Your task to perform on an android device: Do I have any events today? Image 0: 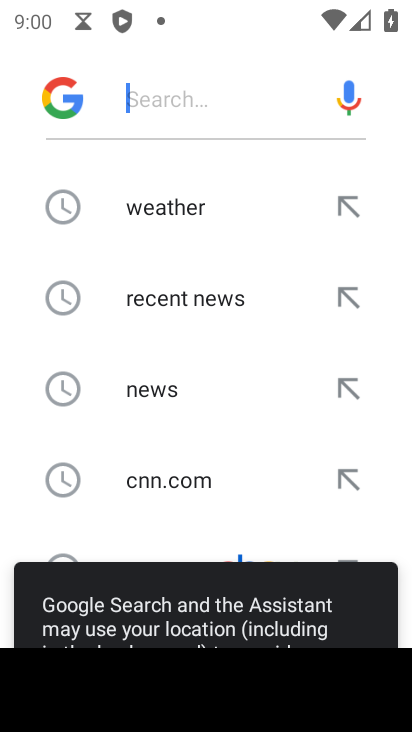
Step 0: drag from (334, 522) to (289, 6)
Your task to perform on an android device: Do I have any events today? Image 1: 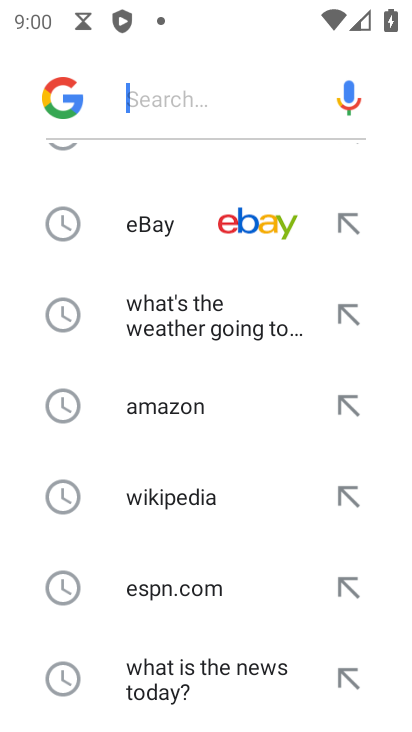
Step 1: press back button
Your task to perform on an android device: Do I have any events today? Image 2: 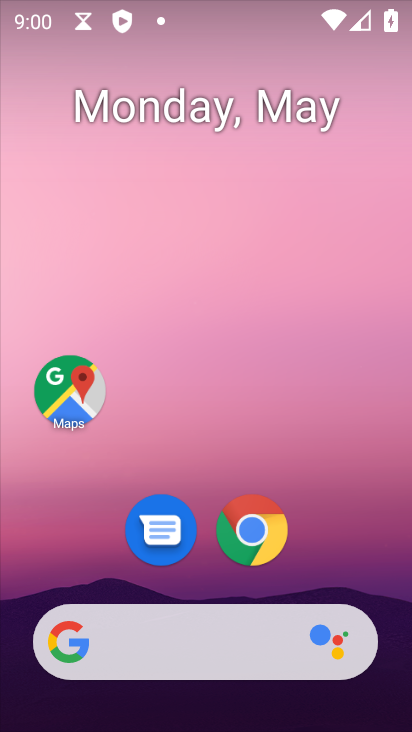
Step 2: drag from (353, 549) to (262, 19)
Your task to perform on an android device: Do I have any events today? Image 3: 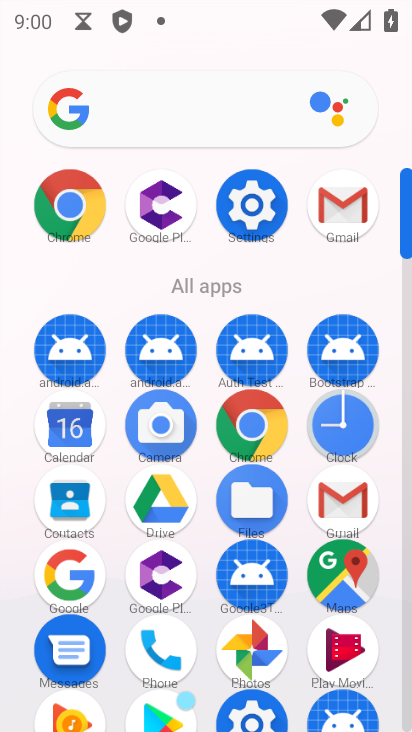
Step 3: click (70, 417)
Your task to perform on an android device: Do I have any events today? Image 4: 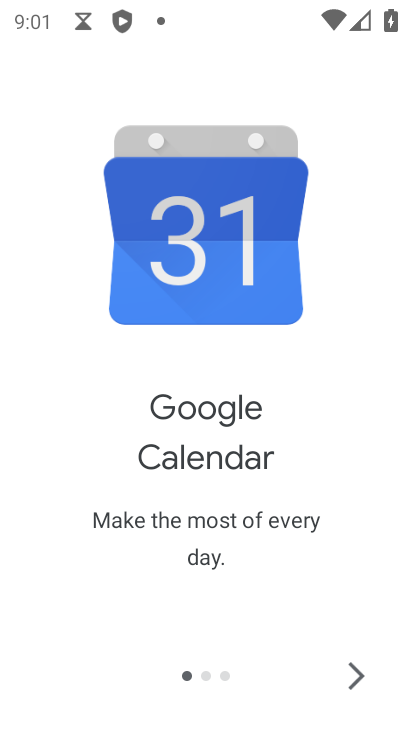
Step 4: click (351, 673)
Your task to perform on an android device: Do I have any events today? Image 5: 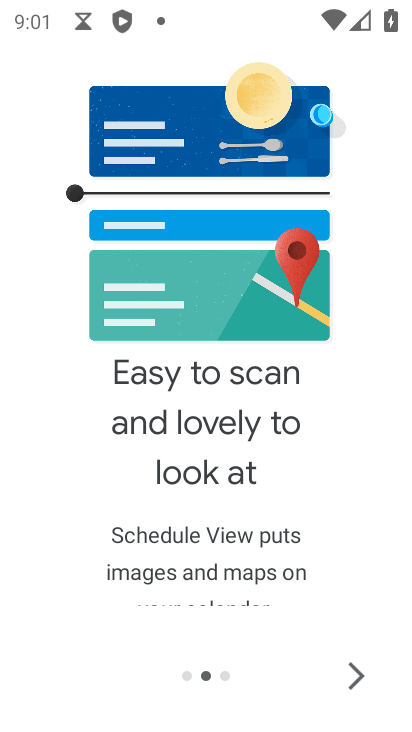
Step 5: click (352, 673)
Your task to perform on an android device: Do I have any events today? Image 6: 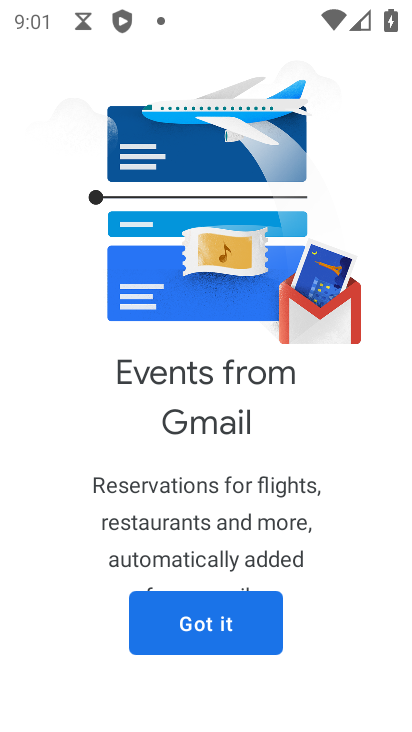
Step 6: click (212, 613)
Your task to perform on an android device: Do I have any events today? Image 7: 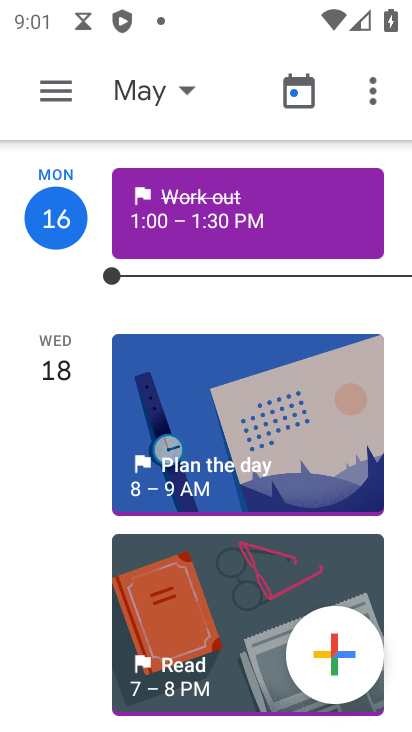
Step 7: task complete